Your task to perform on an android device: Open Google Chrome Image 0: 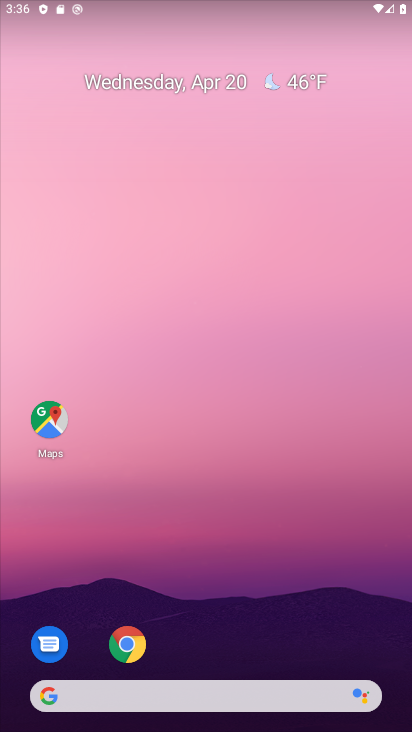
Step 0: click (120, 652)
Your task to perform on an android device: Open Google Chrome Image 1: 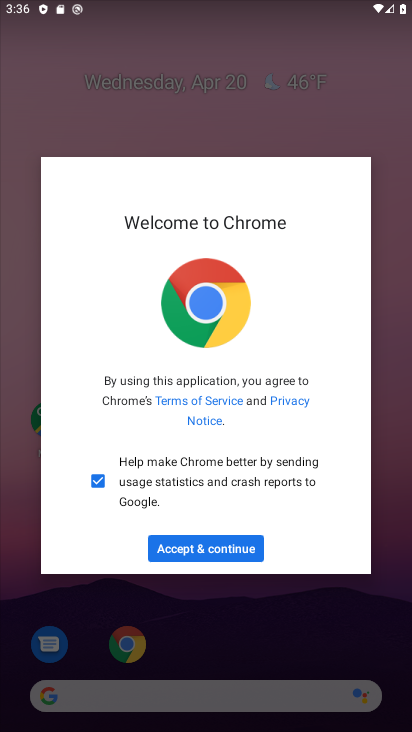
Step 1: click (228, 549)
Your task to perform on an android device: Open Google Chrome Image 2: 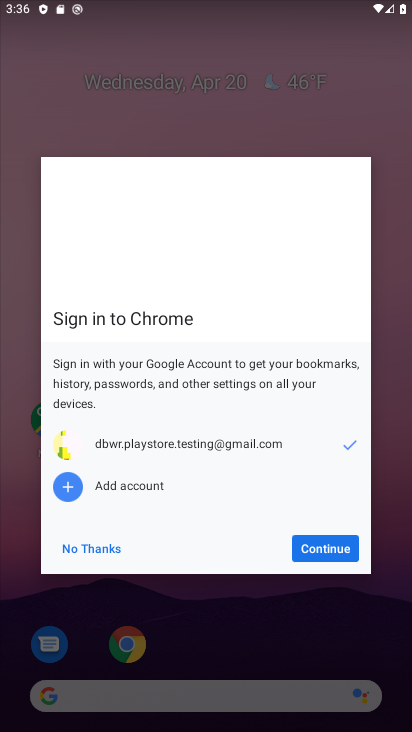
Step 2: click (332, 553)
Your task to perform on an android device: Open Google Chrome Image 3: 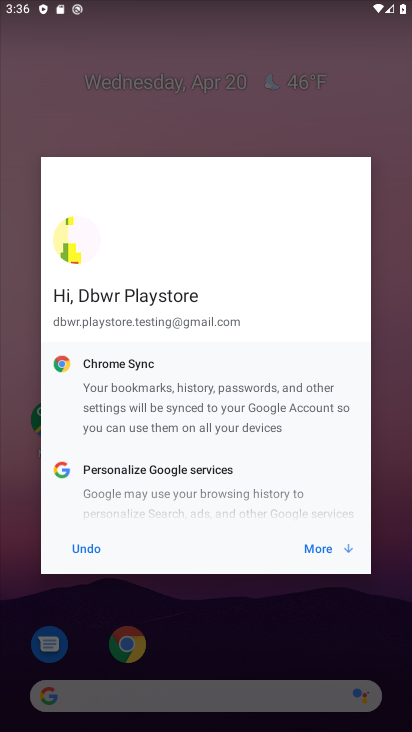
Step 3: click (313, 553)
Your task to perform on an android device: Open Google Chrome Image 4: 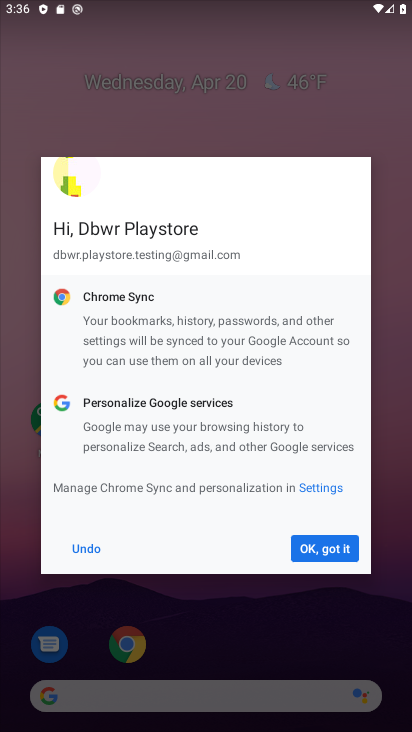
Step 4: click (313, 551)
Your task to perform on an android device: Open Google Chrome Image 5: 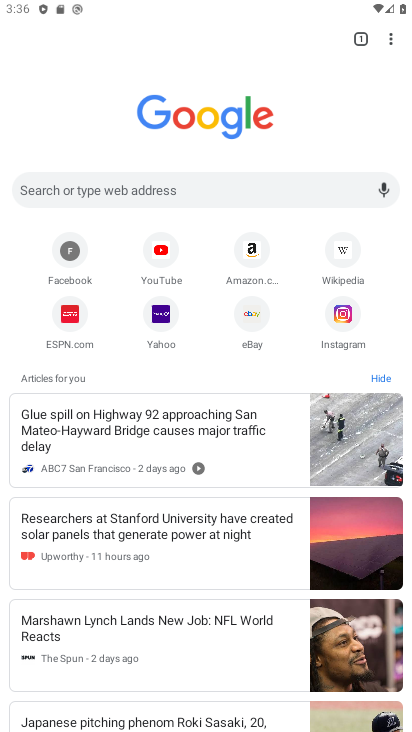
Step 5: task complete